Your task to perform on an android device: show emergency info Image 0: 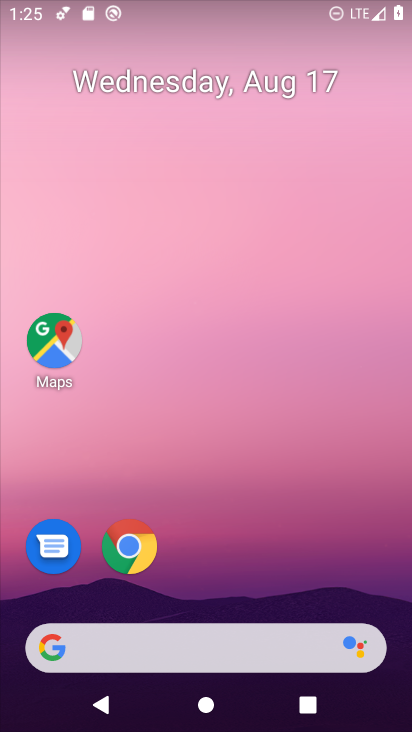
Step 0: drag from (238, 595) to (194, 220)
Your task to perform on an android device: show emergency info Image 1: 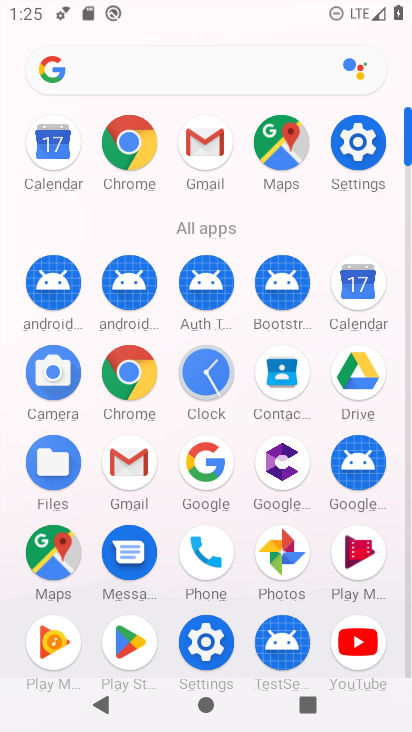
Step 1: click (360, 140)
Your task to perform on an android device: show emergency info Image 2: 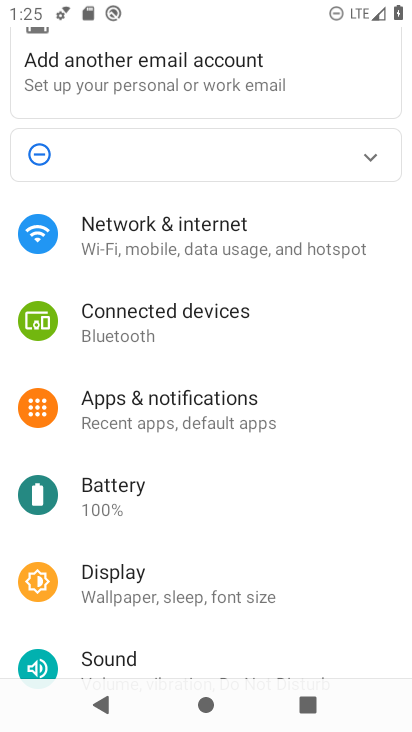
Step 2: drag from (236, 636) to (214, 331)
Your task to perform on an android device: show emergency info Image 3: 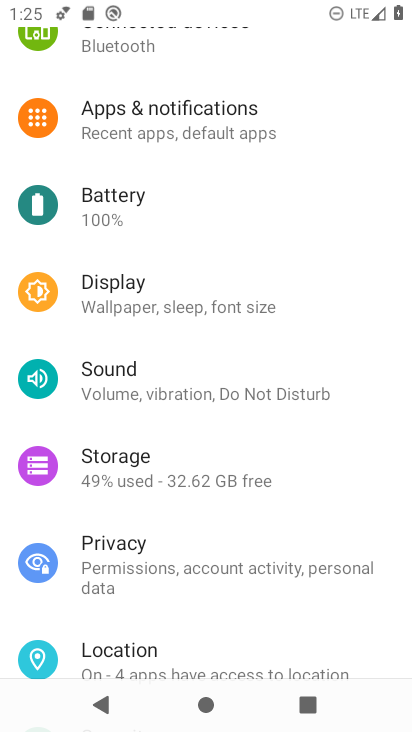
Step 3: drag from (215, 610) to (208, 352)
Your task to perform on an android device: show emergency info Image 4: 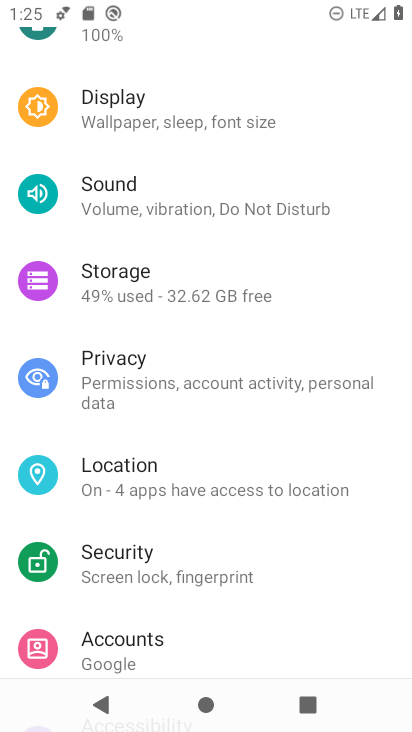
Step 4: drag from (215, 615) to (186, 319)
Your task to perform on an android device: show emergency info Image 5: 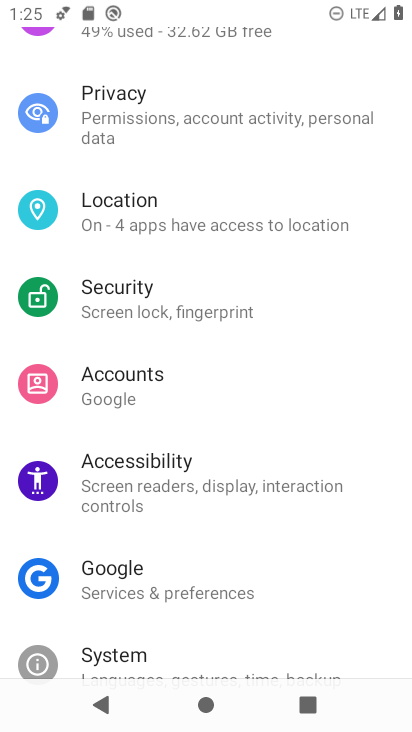
Step 5: drag from (217, 640) to (180, 373)
Your task to perform on an android device: show emergency info Image 6: 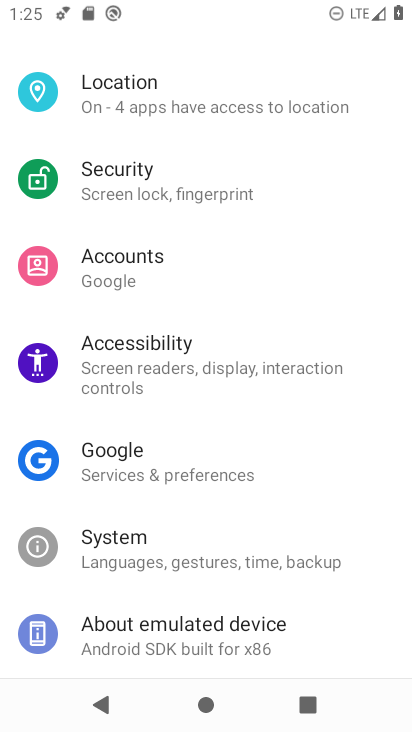
Step 6: drag from (248, 512) to (238, 309)
Your task to perform on an android device: show emergency info Image 7: 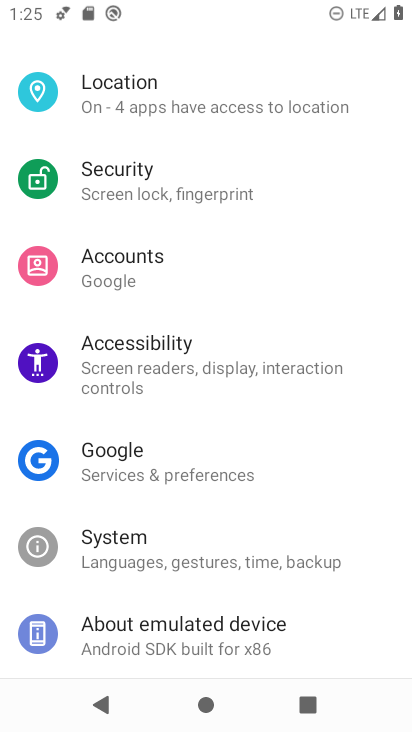
Step 7: click (177, 622)
Your task to perform on an android device: show emergency info Image 8: 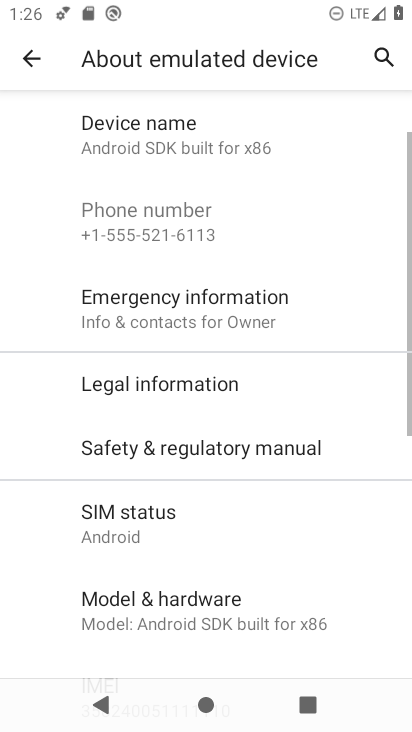
Step 8: click (188, 294)
Your task to perform on an android device: show emergency info Image 9: 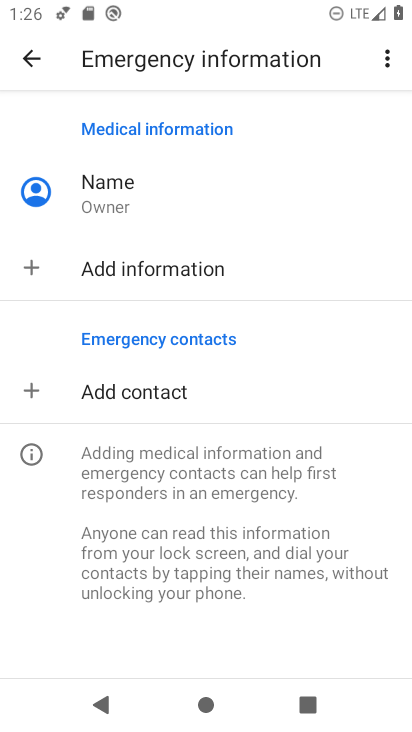
Step 9: task complete